Your task to perform on an android device: Open calendar and show me the third week of next month Image 0: 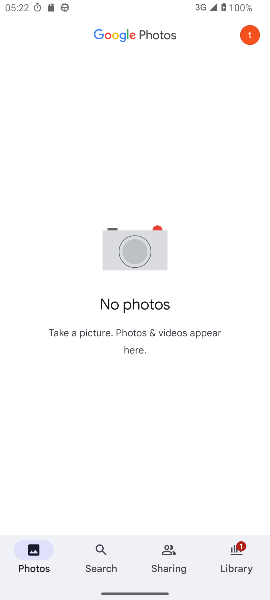
Step 0: press home button
Your task to perform on an android device: Open calendar and show me the third week of next month Image 1: 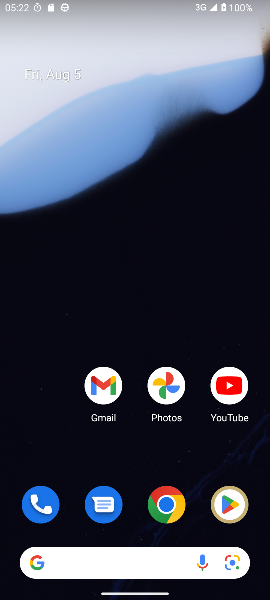
Step 1: drag from (12, 575) to (220, 140)
Your task to perform on an android device: Open calendar and show me the third week of next month Image 2: 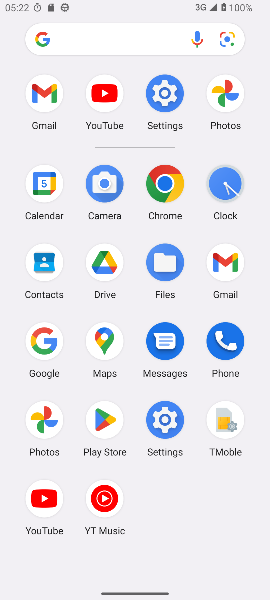
Step 2: click (52, 190)
Your task to perform on an android device: Open calendar and show me the third week of next month Image 3: 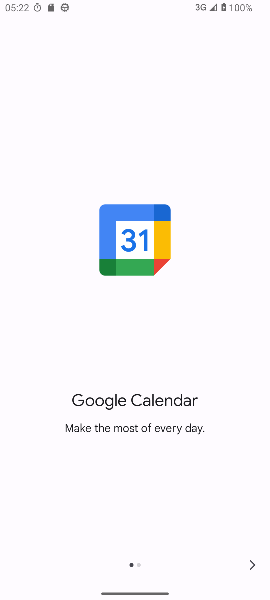
Step 3: click (247, 562)
Your task to perform on an android device: Open calendar and show me the third week of next month Image 4: 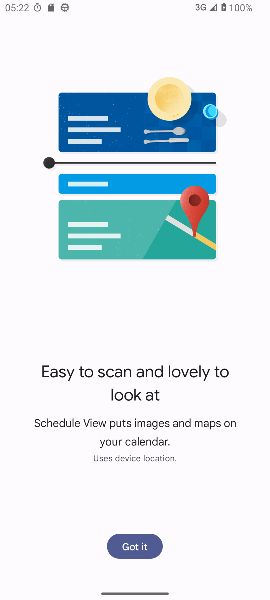
Step 4: click (142, 545)
Your task to perform on an android device: Open calendar and show me the third week of next month Image 5: 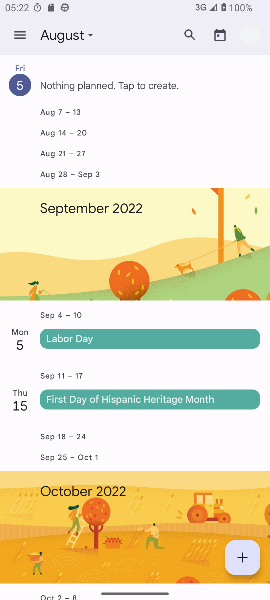
Step 5: click (87, 37)
Your task to perform on an android device: Open calendar and show me the third week of next month Image 6: 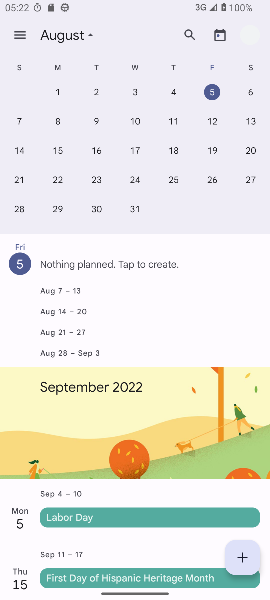
Step 6: drag from (266, 151) to (11, 197)
Your task to perform on an android device: Open calendar and show me the third week of next month Image 7: 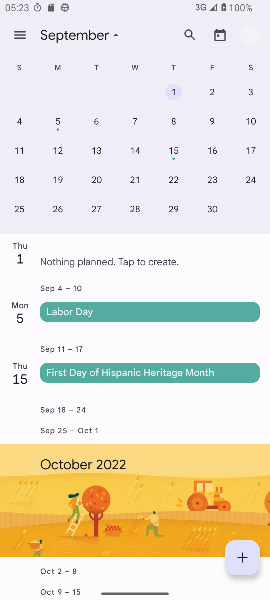
Step 7: click (57, 152)
Your task to perform on an android device: Open calendar and show me the third week of next month Image 8: 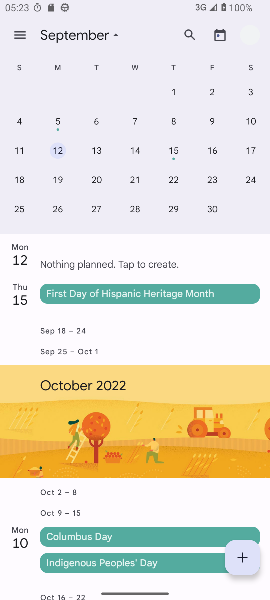
Step 8: task complete